Your task to perform on an android device: Open the web browser Image 0: 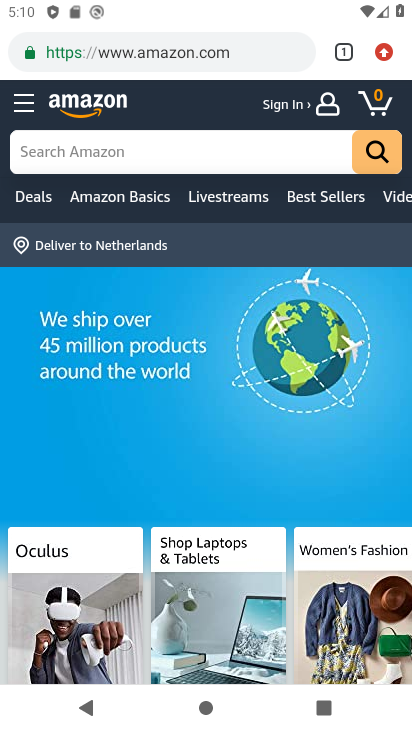
Step 0: click (384, 52)
Your task to perform on an android device: Open the web browser Image 1: 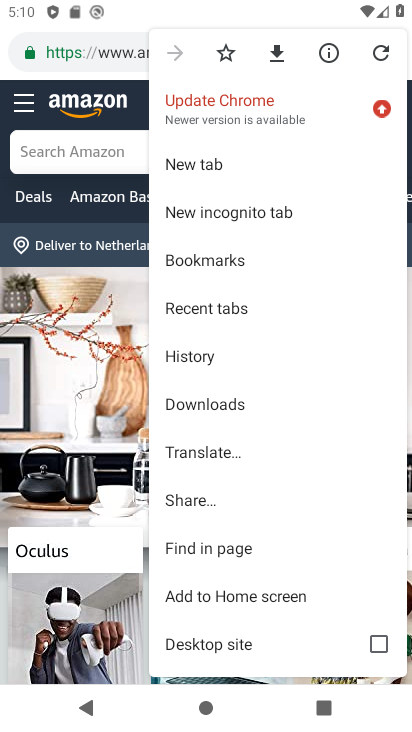
Step 1: click (214, 161)
Your task to perform on an android device: Open the web browser Image 2: 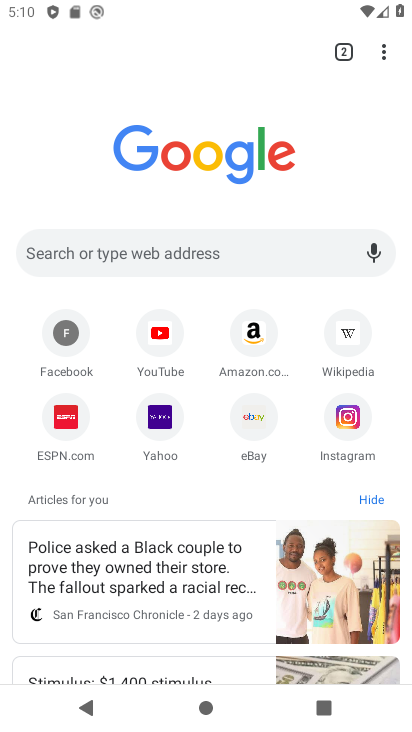
Step 2: task complete